Your task to perform on an android device: turn off translation in the chrome app Image 0: 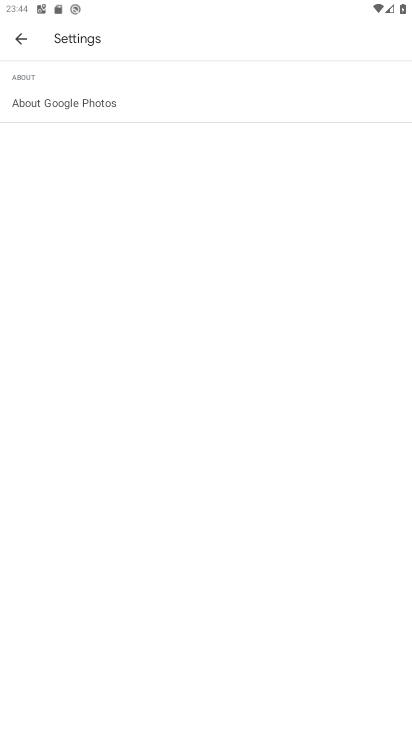
Step 0: press home button
Your task to perform on an android device: turn off translation in the chrome app Image 1: 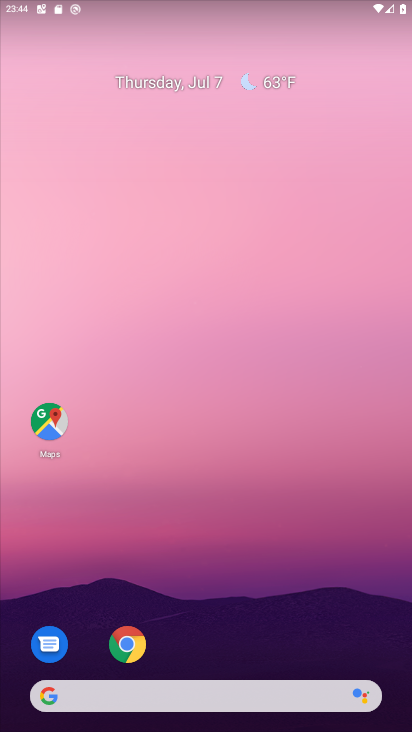
Step 1: click (129, 647)
Your task to perform on an android device: turn off translation in the chrome app Image 2: 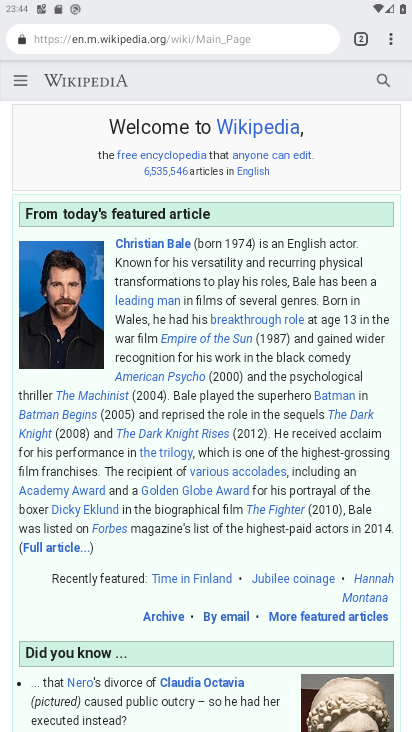
Step 2: click (129, 647)
Your task to perform on an android device: turn off translation in the chrome app Image 3: 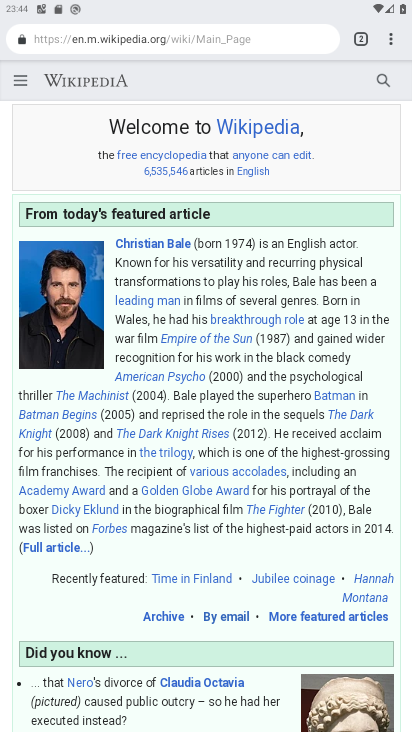
Step 3: click (393, 41)
Your task to perform on an android device: turn off translation in the chrome app Image 4: 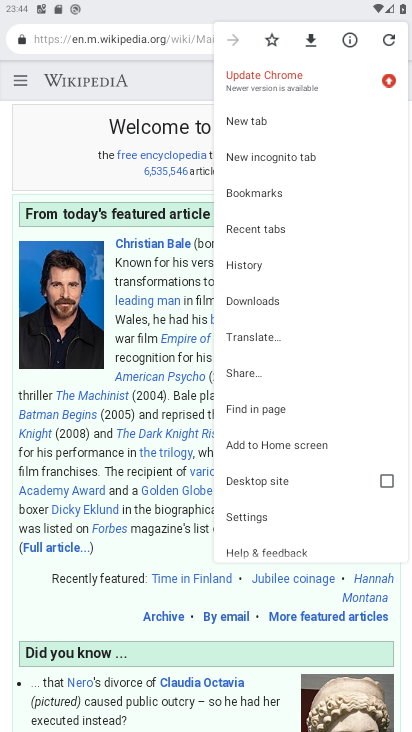
Step 4: click (247, 512)
Your task to perform on an android device: turn off translation in the chrome app Image 5: 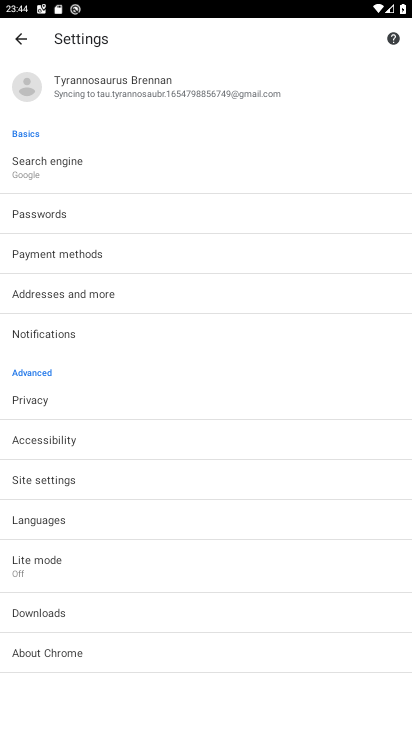
Step 5: click (44, 519)
Your task to perform on an android device: turn off translation in the chrome app Image 6: 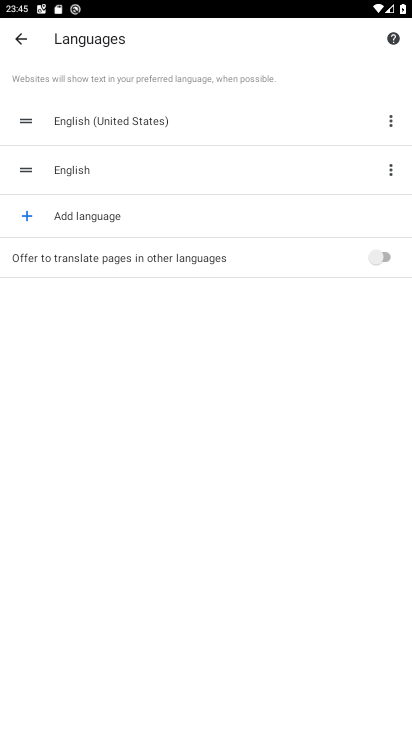
Step 6: task complete